Your task to perform on an android device: see creations saved in the google photos Image 0: 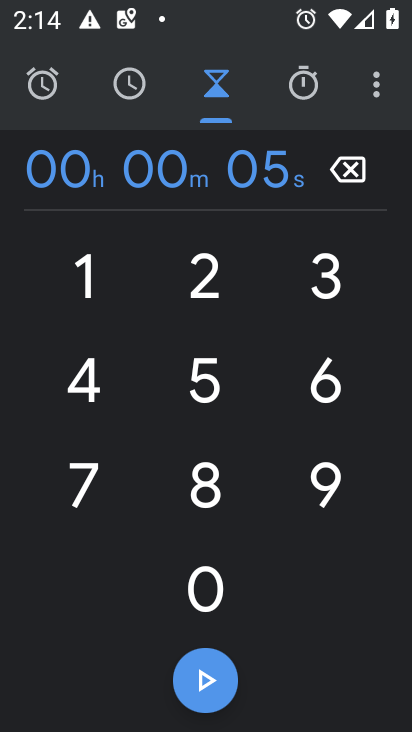
Step 0: press home button
Your task to perform on an android device: see creations saved in the google photos Image 1: 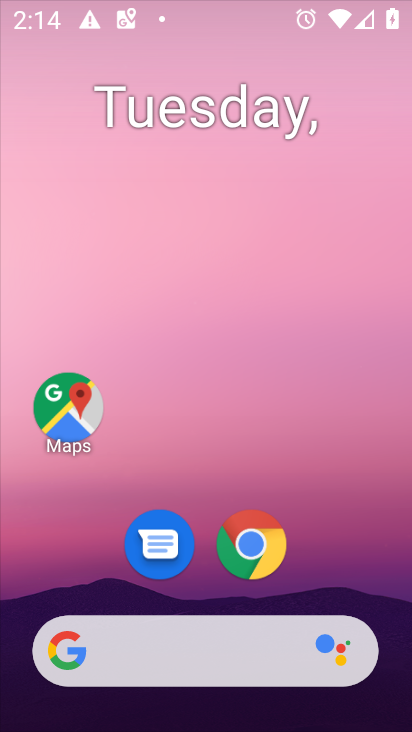
Step 1: drag from (325, 535) to (162, 15)
Your task to perform on an android device: see creations saved in the google photos Image 2: 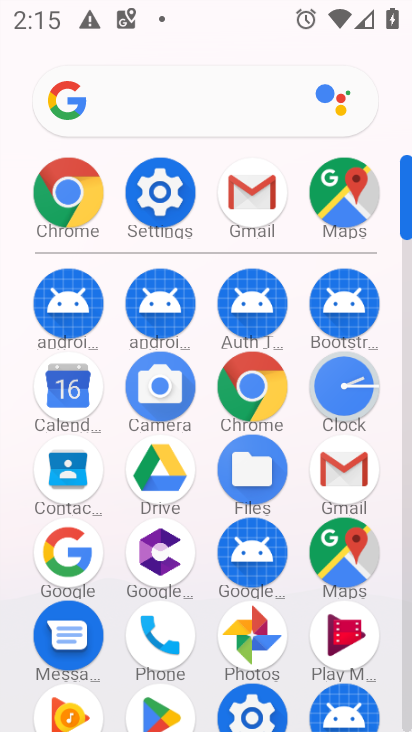
Step 2: click (253, 636)
Your task to perform on an android device: see creations saved in the google photos Image 3: 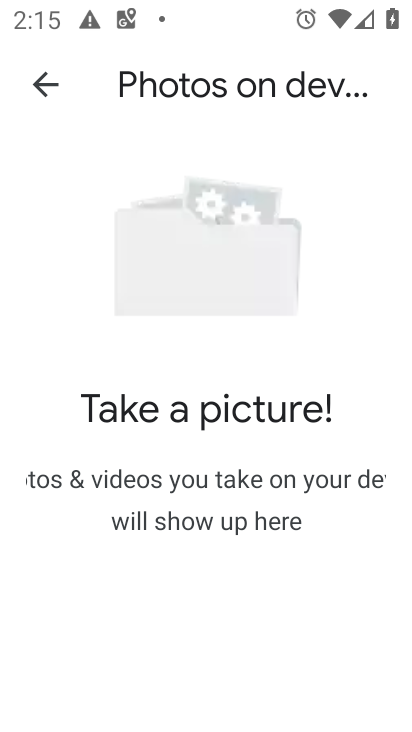
Step 3: click (36, 86)
Your task to perform on an android device: see creations saved in the google photos Image 4: 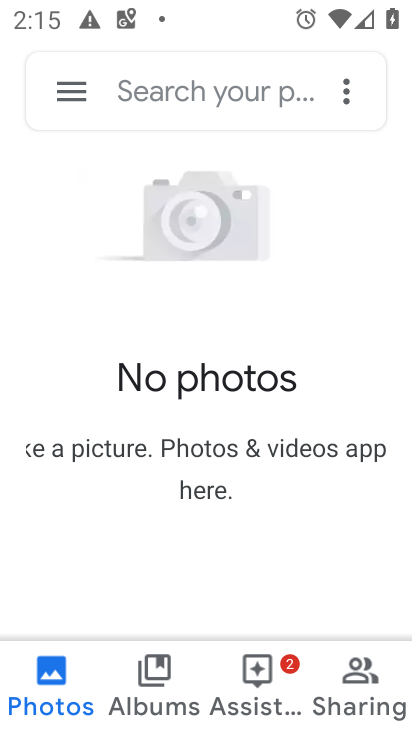
Step 4: click (271, 689)
Your task to perform on an android device: see creations saved in the google photos Image 5: 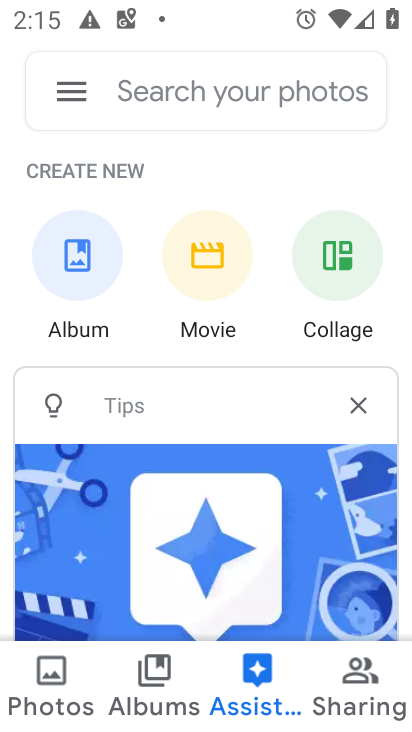
Step 5: task complete